Your task to perform on an android device: turn on the 24-hour format for clock Image 0: 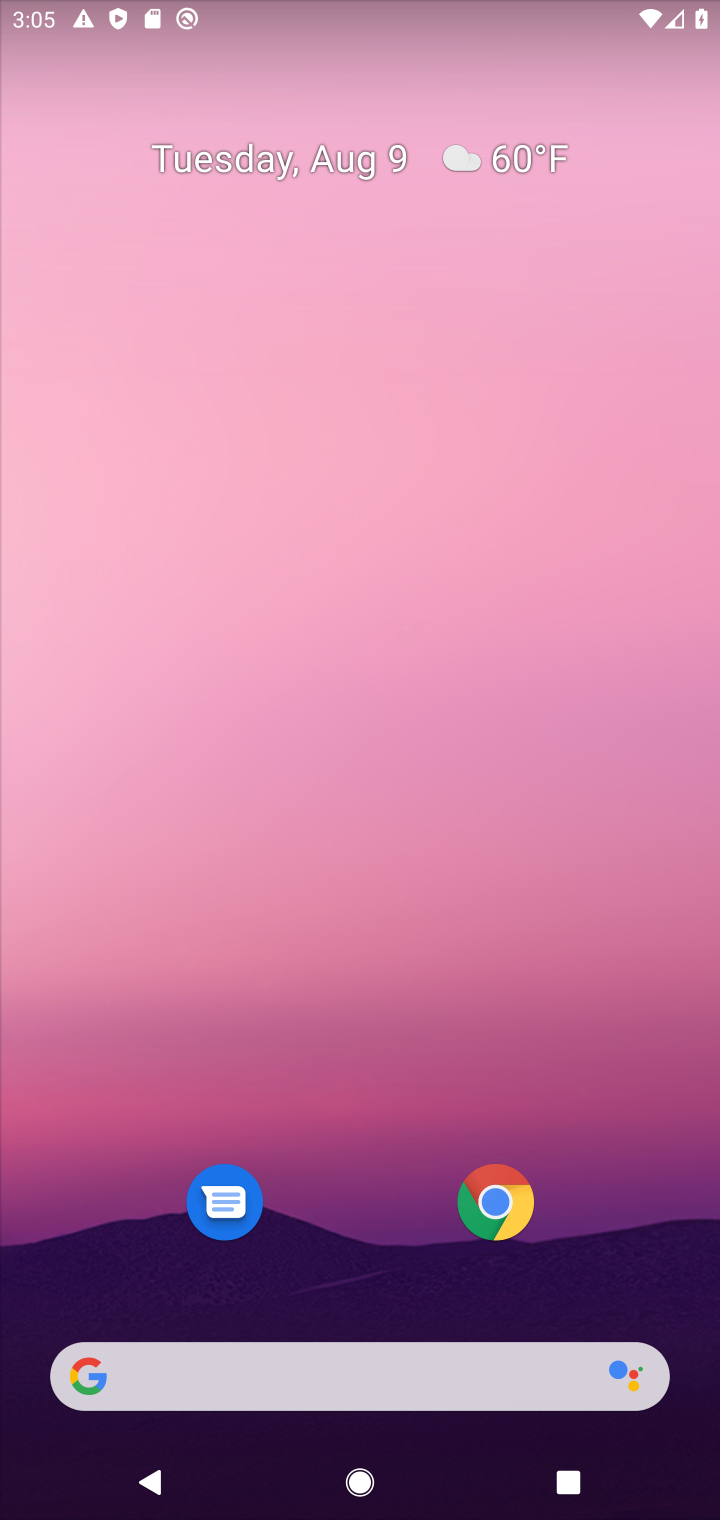
Step 0: press home button
Your task to perform on an android device: turn on the 24-hour format for clock Image 1: 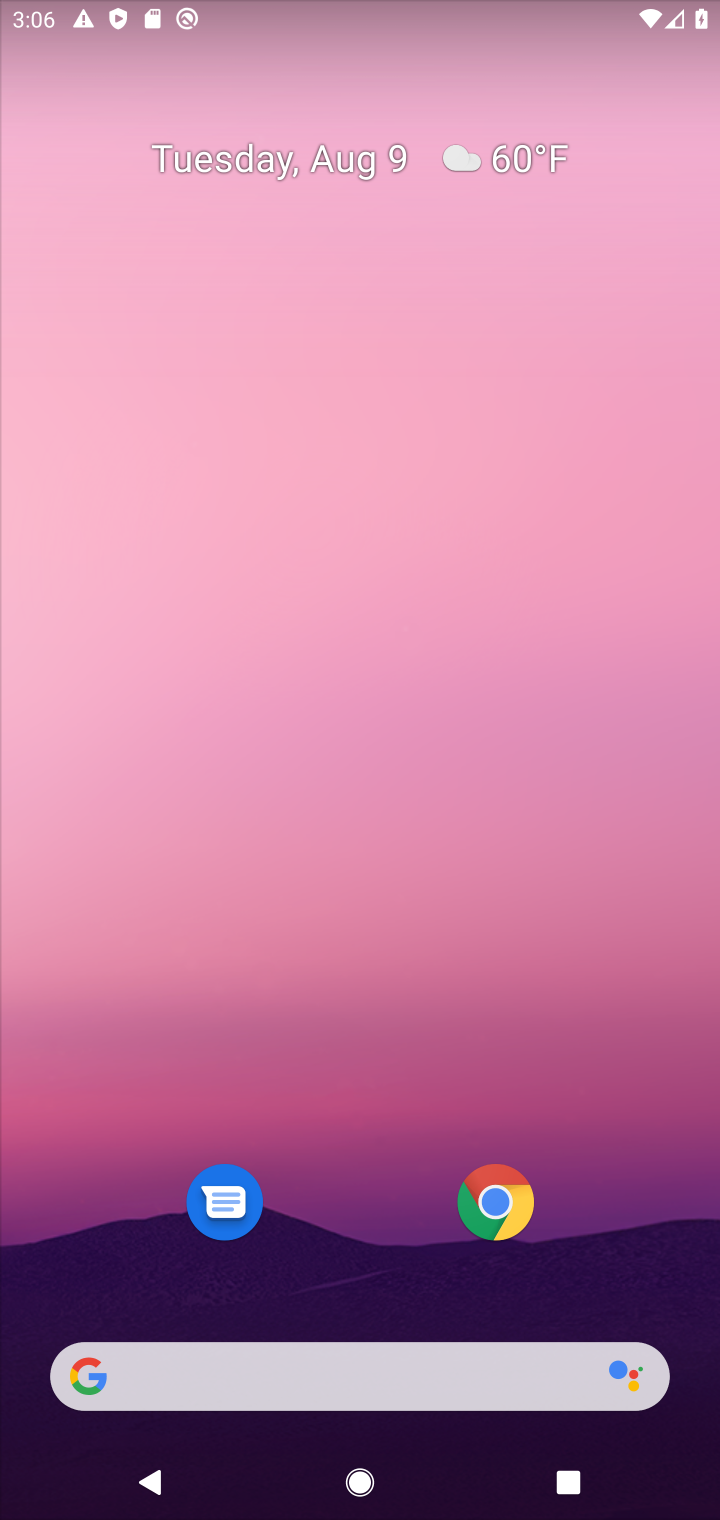
Step 1: drag from (332, 1230) to (508, 723)
Your task to perform on an android device: turn on the 24-hour format for clock Image 2: 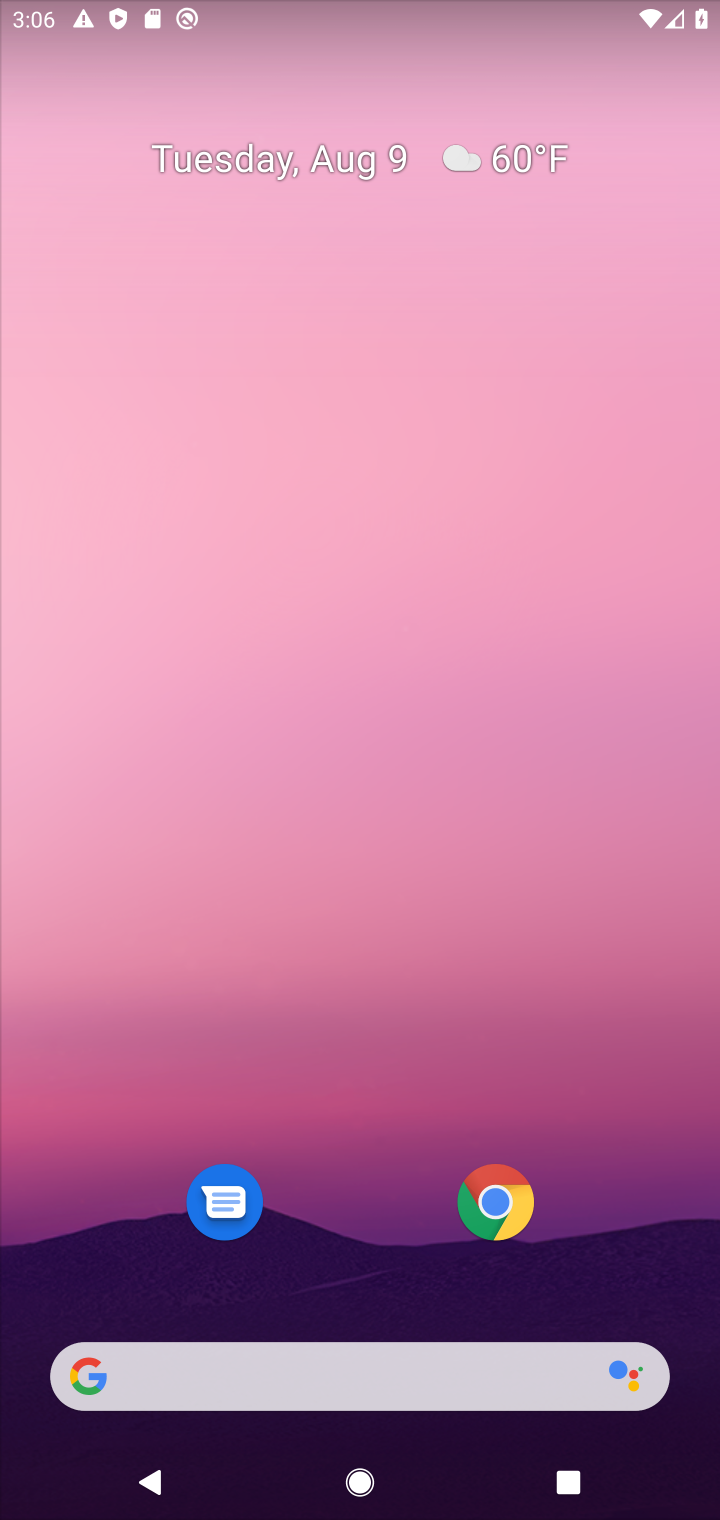
Step 2: drag from (333, 1050) to (437, 73)
Your task to perform on an android device: turn on the 24-hour format for clock Image 3: 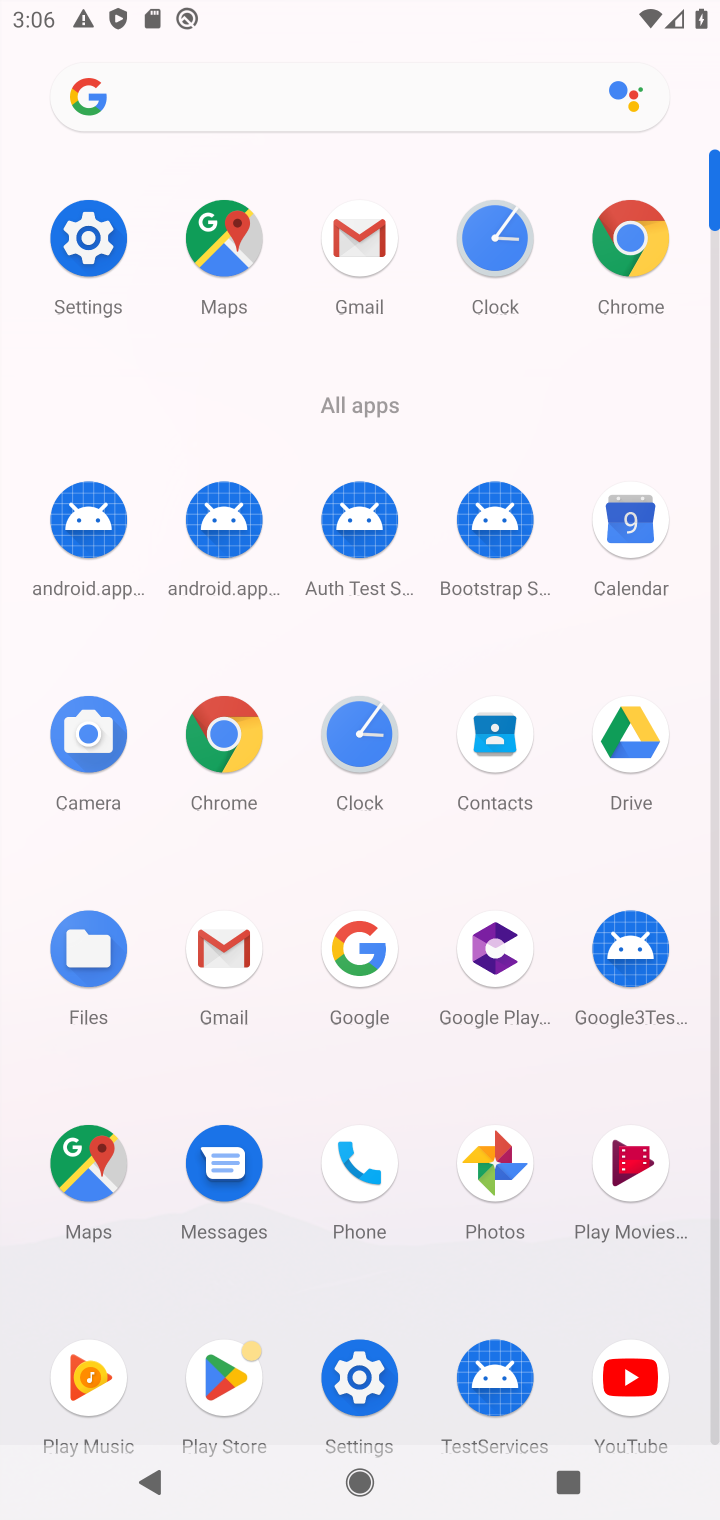
Step 3: click (470, 262)
Your task to perform on an android device: turn on the 24-hour format for clock Image 4: 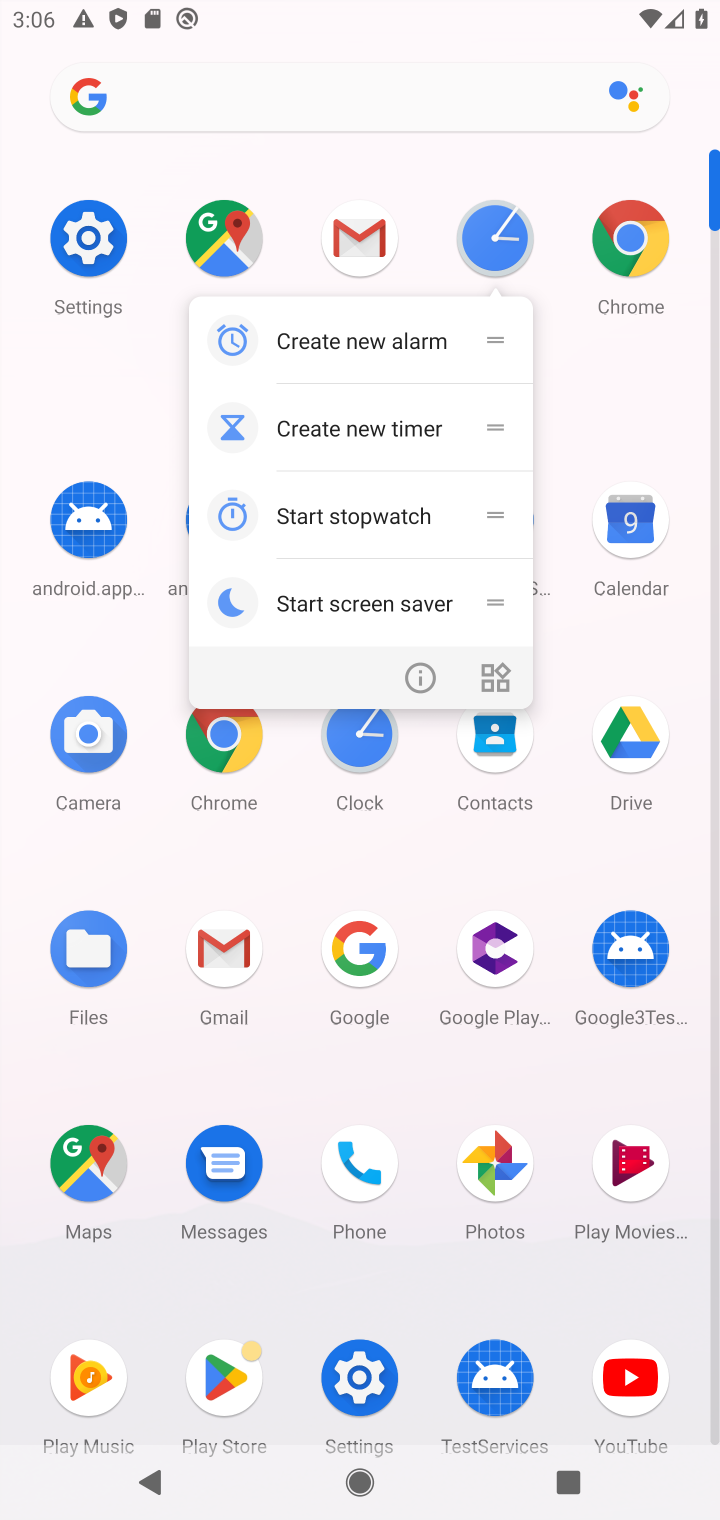
Step 4: click (507, 245)
Your task to perform on an android device: turn on the 24-hour format for clock Image 5: 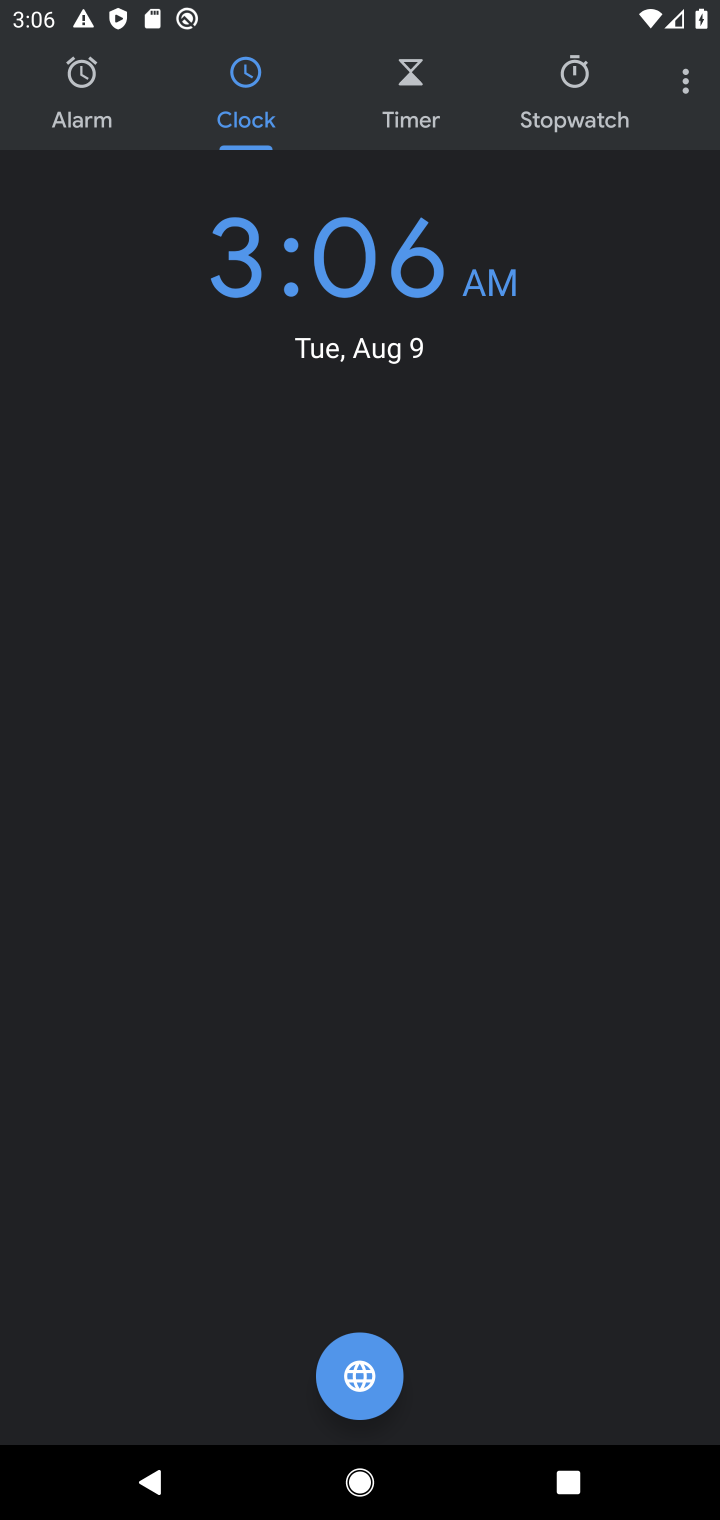
Step 5: click (680, 96)
Your task to perform on an android device: turn on the 24-hour format for clock Image 6: 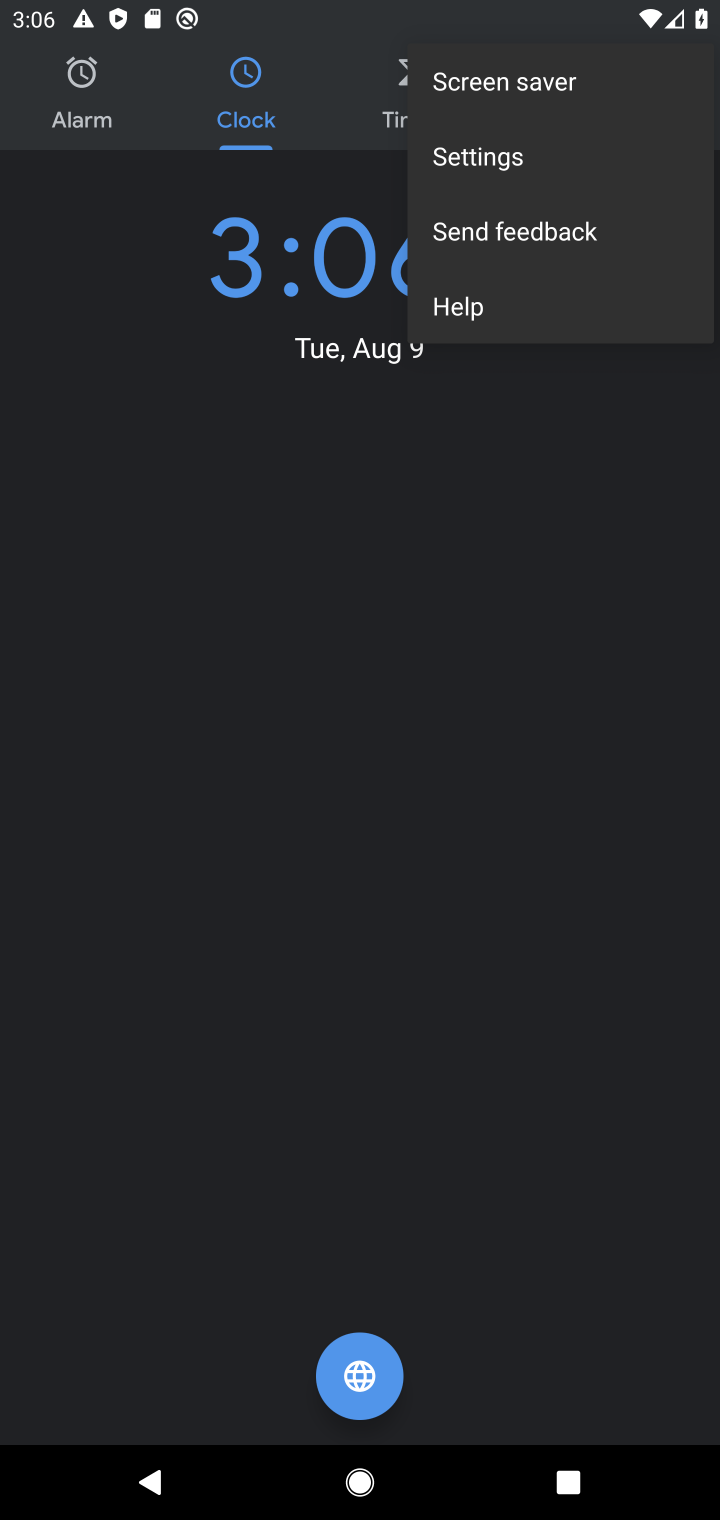
Step 6: click (504, 160)
Your task to perform on an android device: turn on the 24-hour format for clock Image 7: 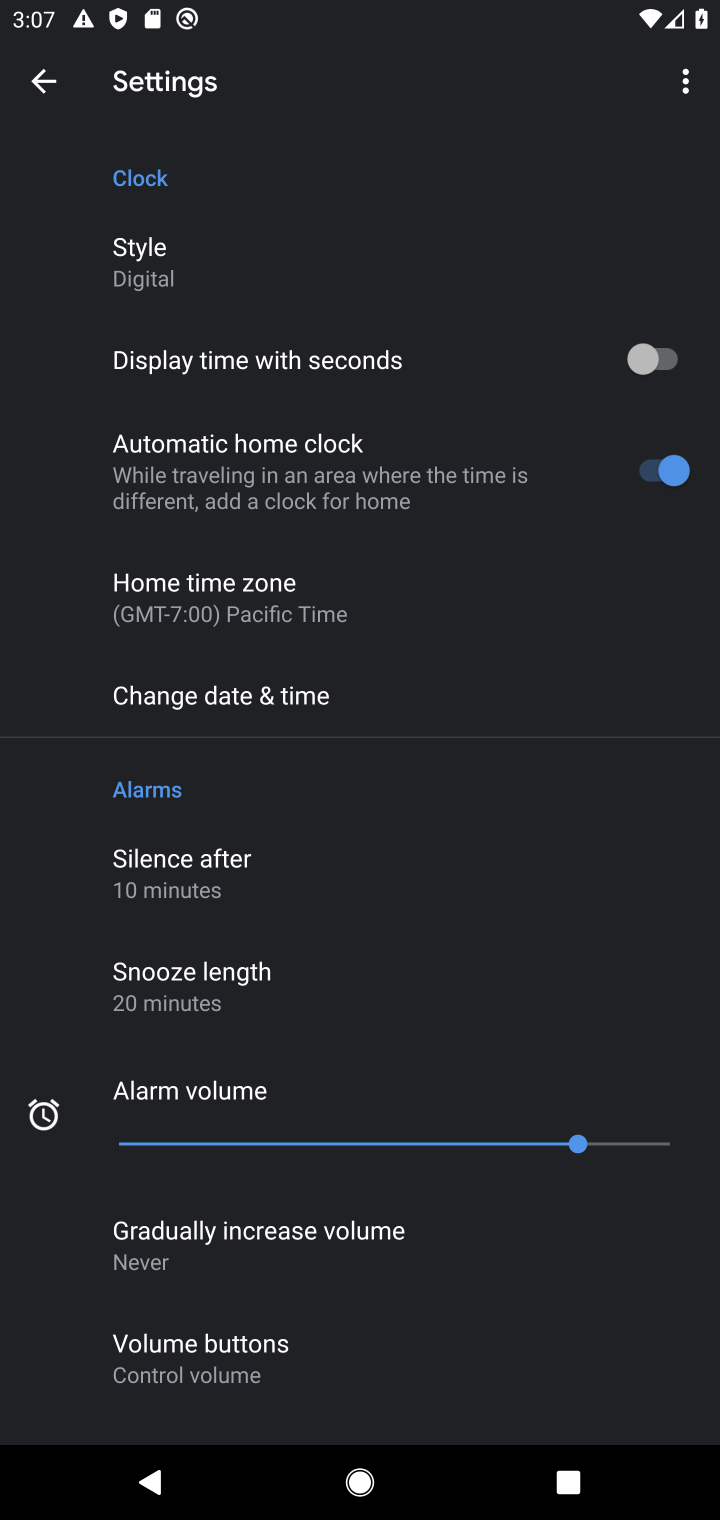
Step 7: click (292, 691)
Your task to perform on an android device: turn on the 24-hour format for clock Image 8: 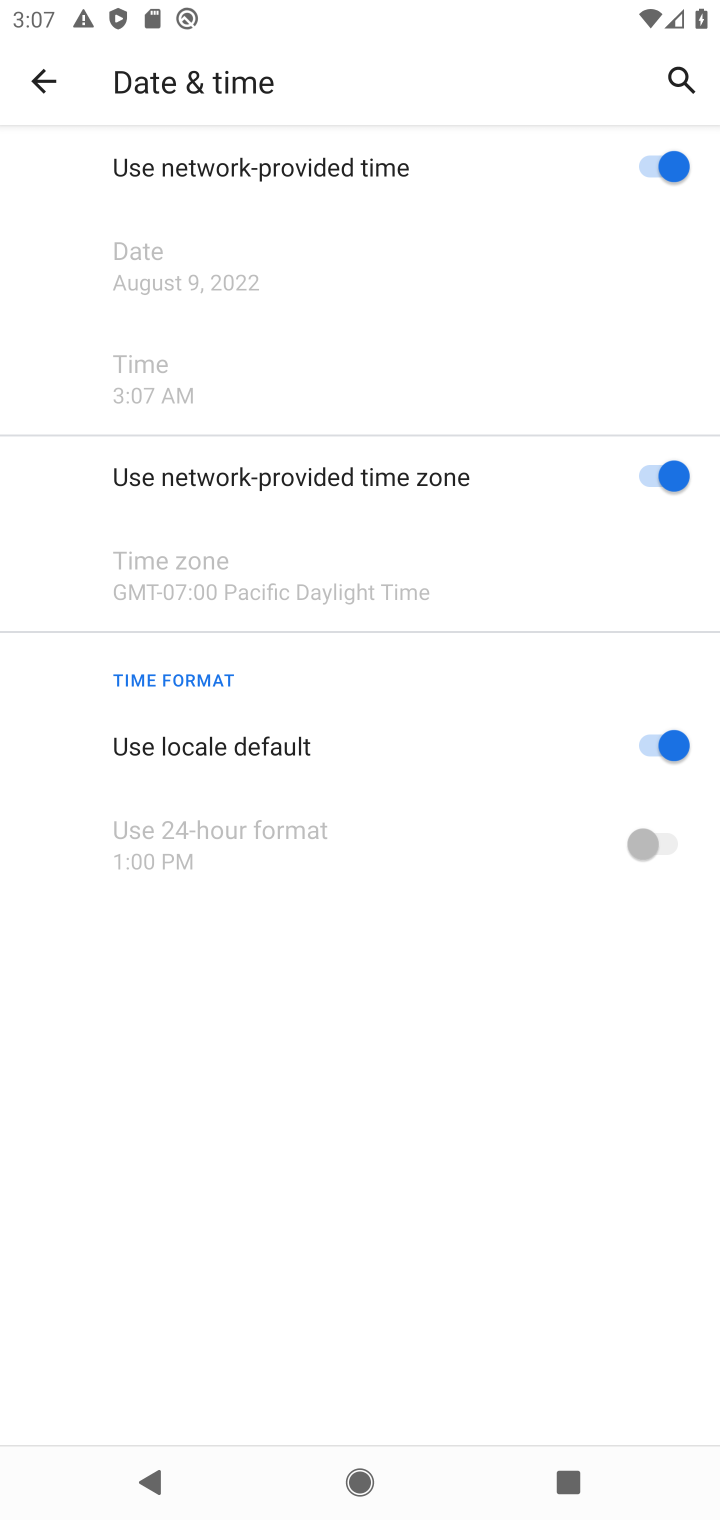
Step 8: click (598, 750)
Your task to perform on an android device: turn on the 24-hour format for clock Image 9: 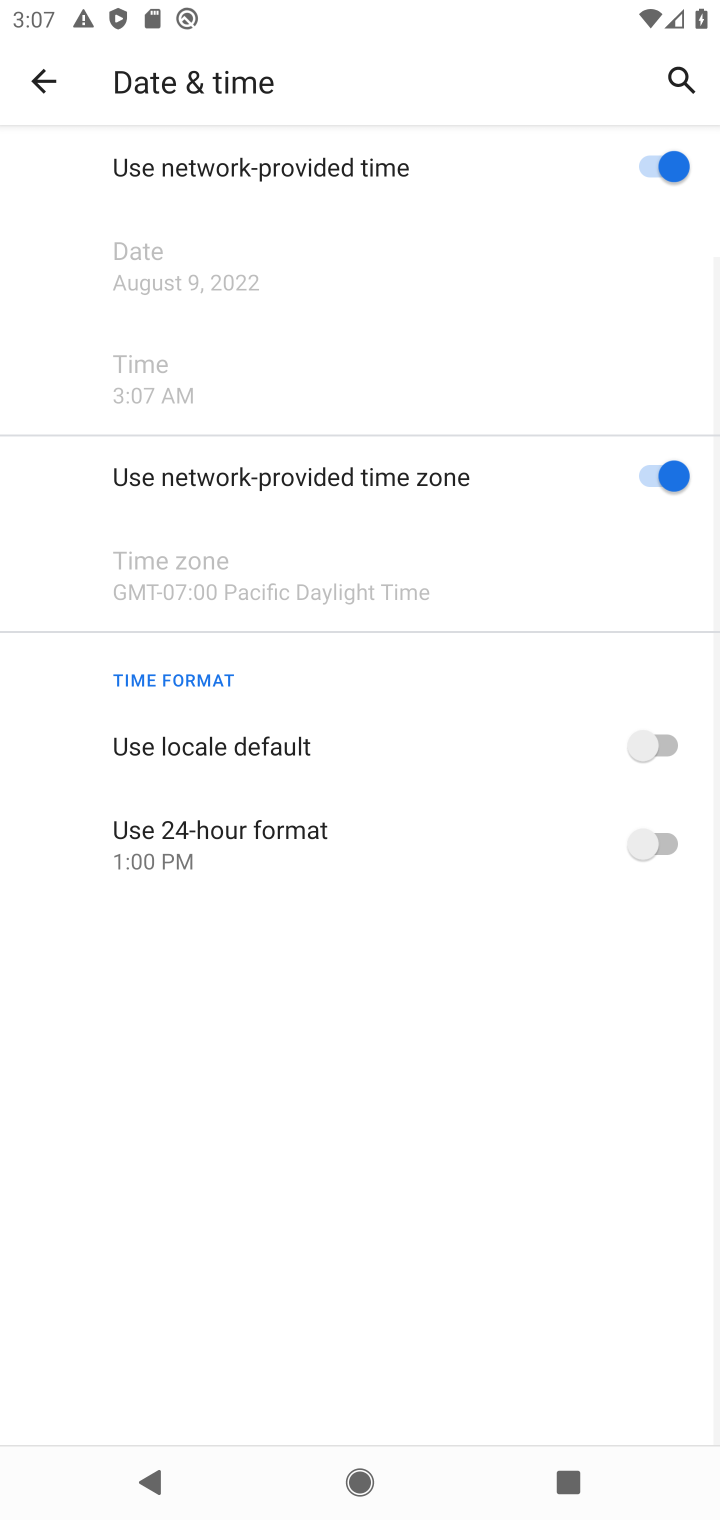
Step 9: click (566, 818)
Your task to perform on an android device: turn on the 24-hour format for clock Image 10: 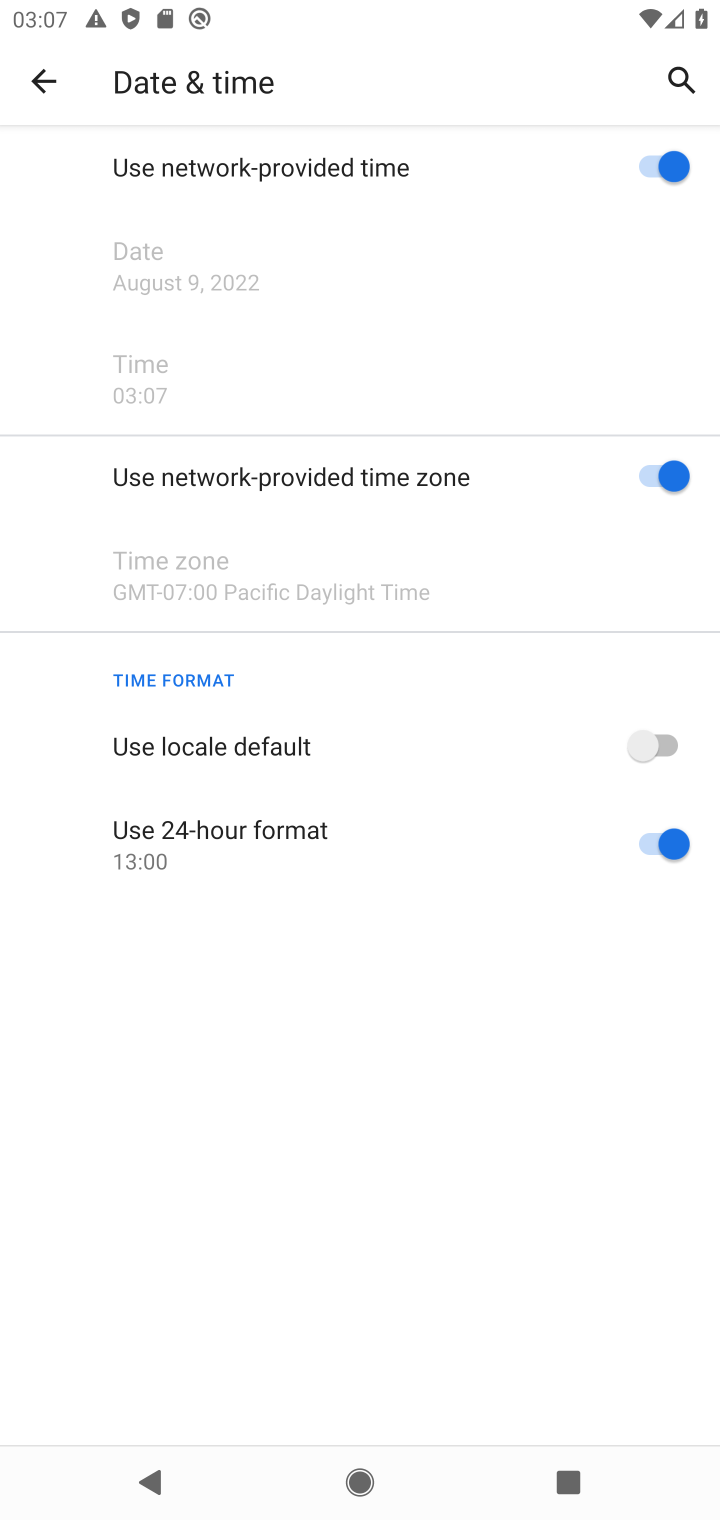
Step 10: task complete